Your task to perform on an android device: open sync settings in chrome Image 0: 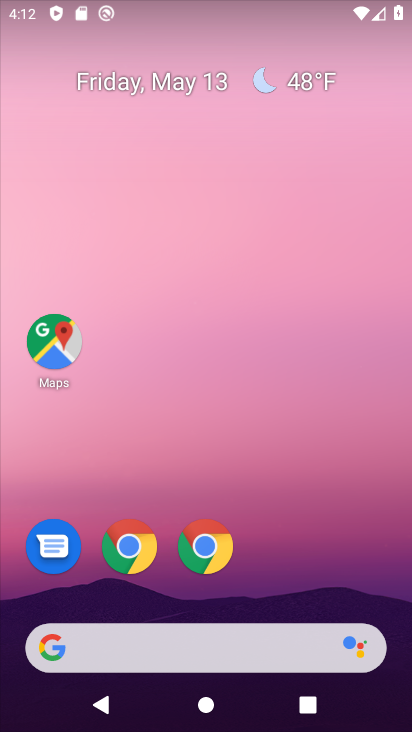
Step 0: drag from (293, 548) to (226, 10)
Your task to perform on an android device: open sync settings in chrome Image 1: 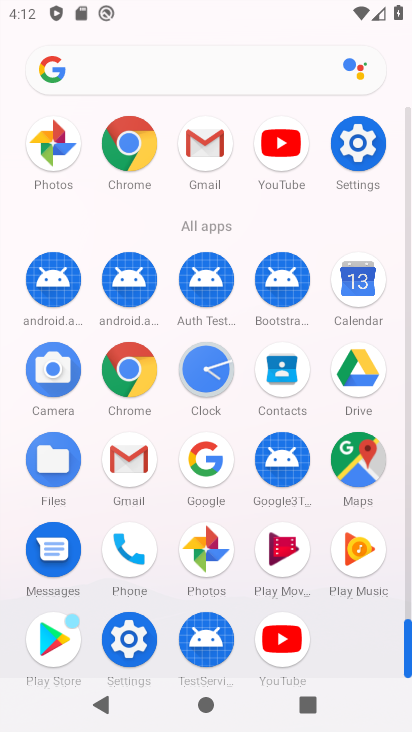
Step 1: click (128, 371)
Your task to perform on an android device: open sync settings in chrome Image 2: 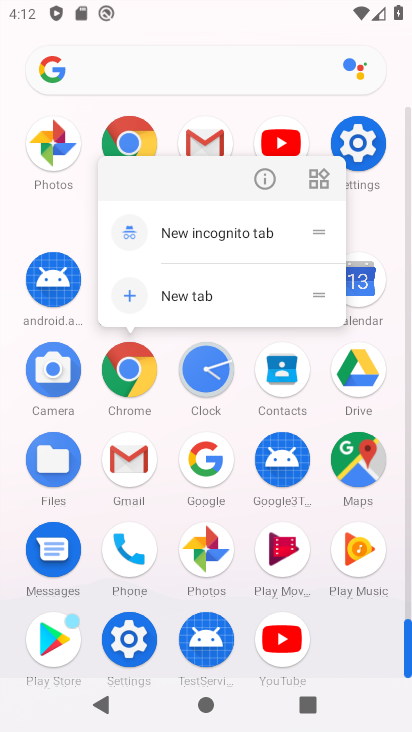
Step 2: click (128, 369)
Your task to perform on an android device: open sync settings in chrome Image 3: 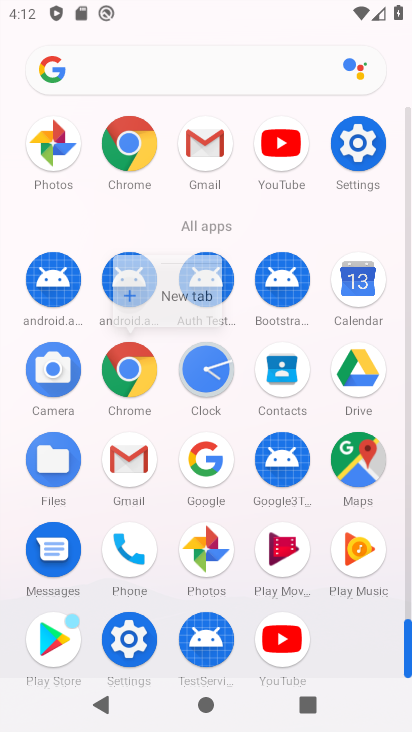
Step 3: click (128, 369)
Your task to perform on an android device: open sync settings in chrome Image 4: 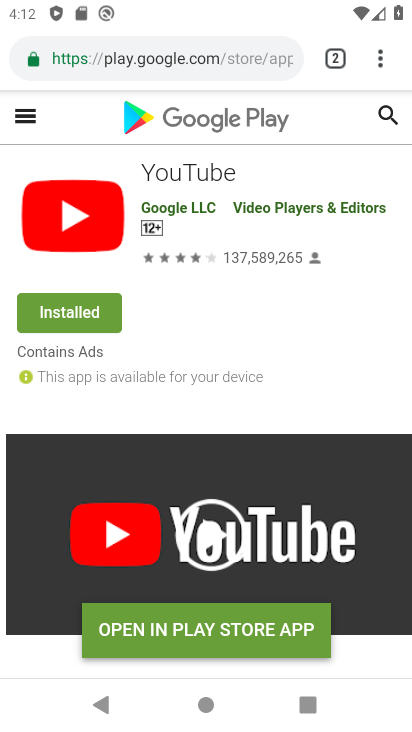
Step 4: drag from (384, 56) to (157, 565)
Your task to perform on an android device: open sync settings in chrome Image 5: 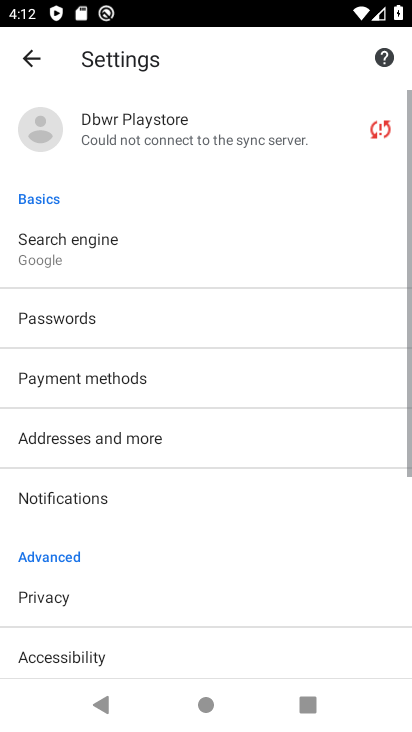
Step 5: drag from (78, 469) to (97, 16)
Your task to perform on an android device: open sync settings in chrome Image 6: 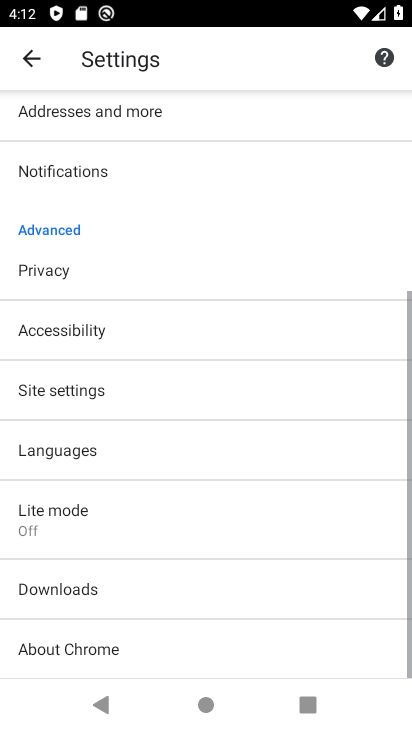
Step 6: drag from (77, 531) to (39, 115)
Your task to perform on an android device: open sync settings in chrome Image 7: 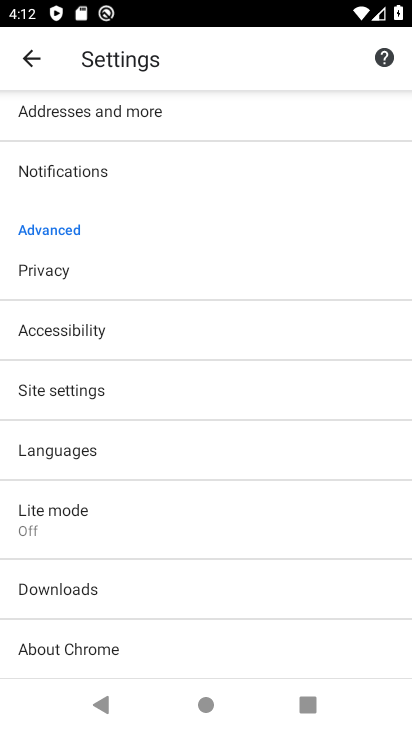
Step 7: click (49, 384)
Your task to perform on an android device: open sync settings in chrome Image 8: 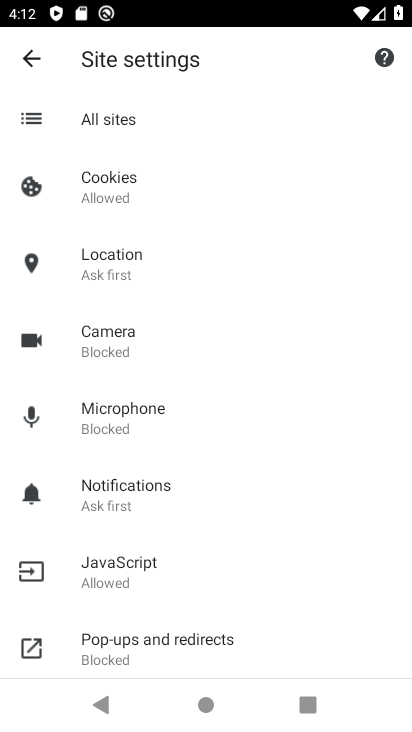
Step 8: drag from (129, 614) to (72, 125)
Your task to perform on an android device: open sync settings in chrome Image 9: 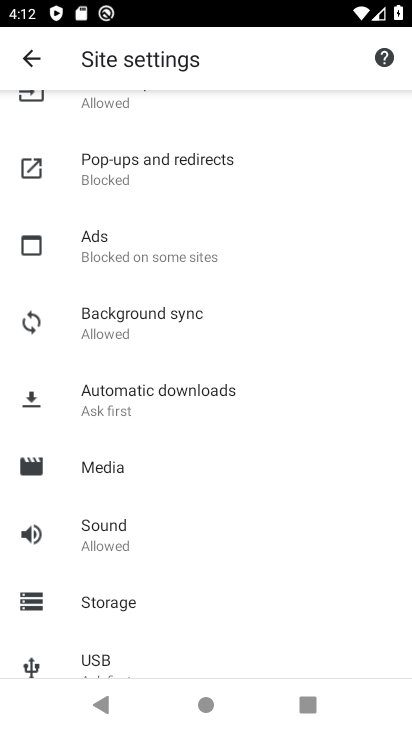
Step 9: click (98, 318)
Your task to perform on an android device: open sync settings in chrome Image 10: 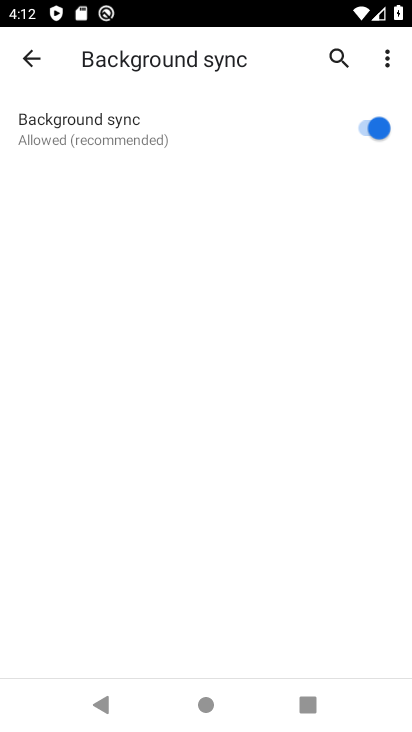
Step 10: task complete